Your task to perform on an android device: Open Google Chrome Image 0: 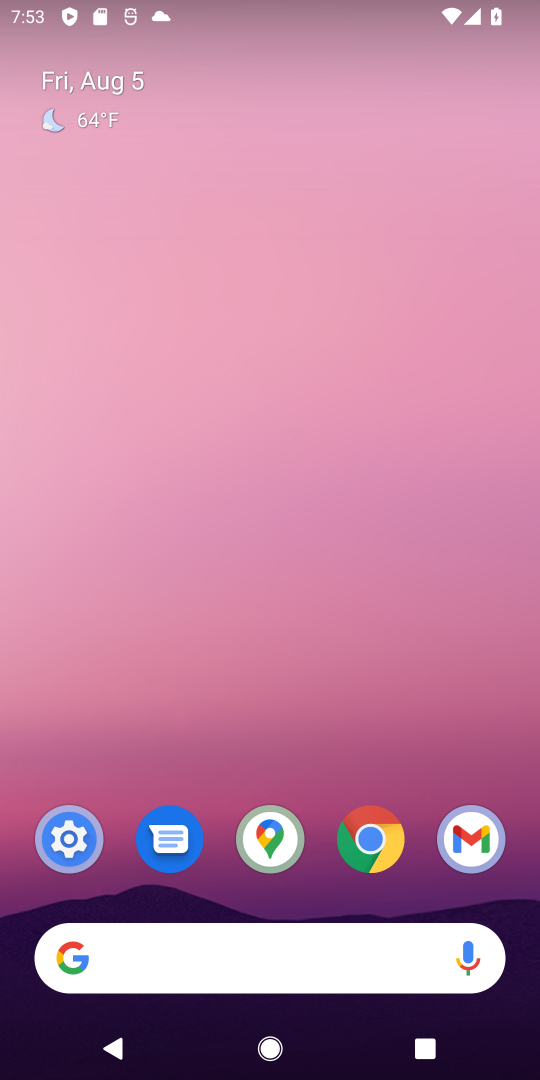
Step 0: click (366, 843)
Your task to perform on an android device: Open Google Chrome Image 1: 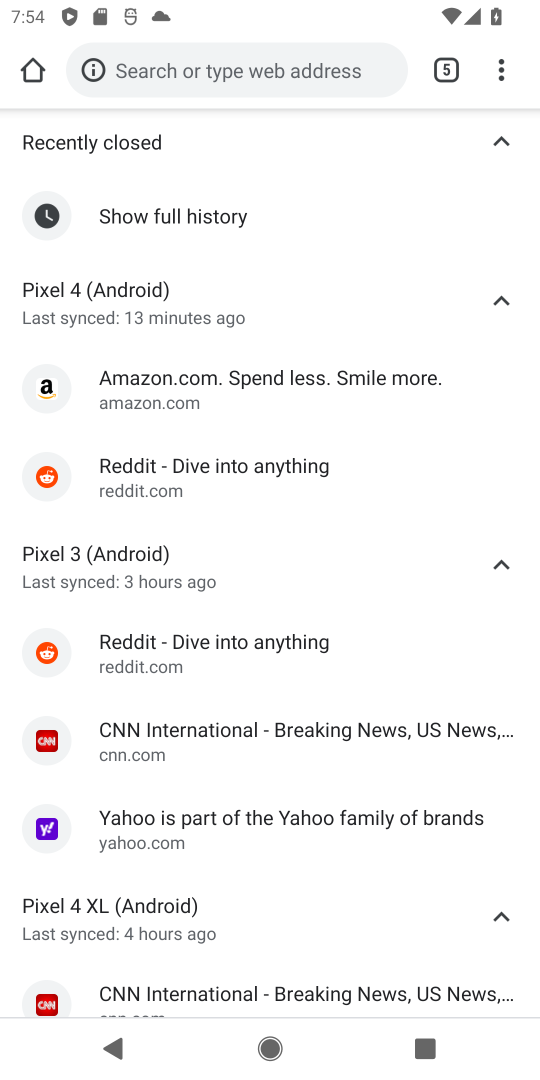
Step 1: task complete